Your task to perform on an android device: turn on translation in the chrome app Image 0: 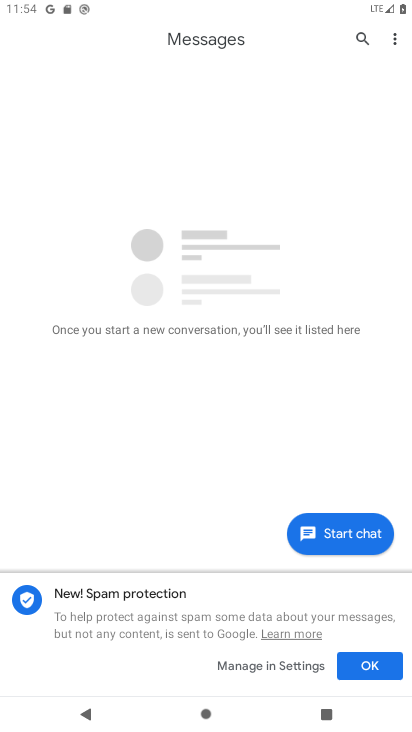
Step 0: press home button
Your task to perform on an android device: turn on translation in the chrome app Image 1: 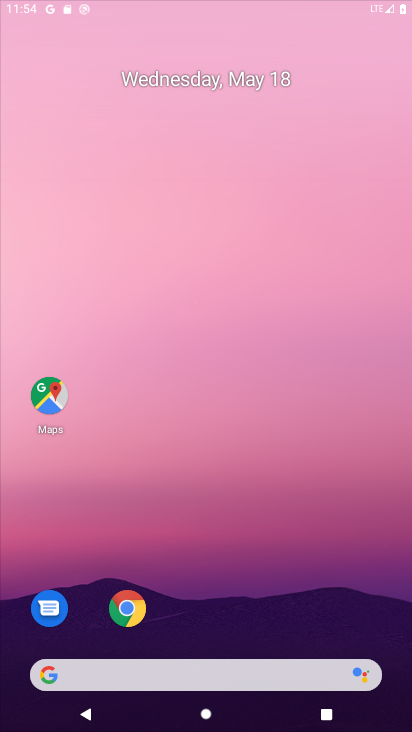
Step 1: drag from (234, 553) to (220, 90)
Your task to perform on an android device: turn on translation in the chrome app Image 2: 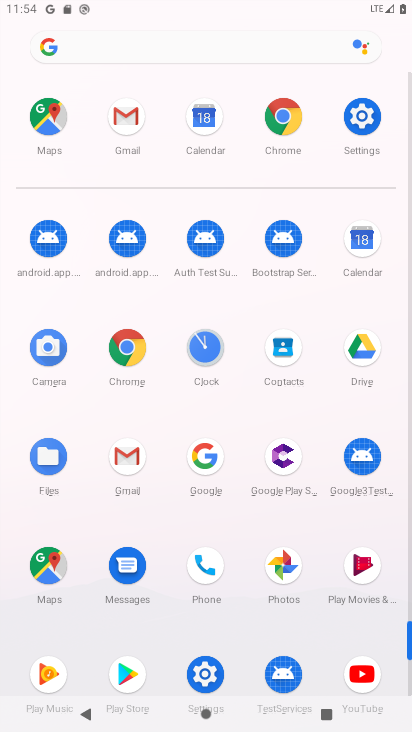
Step 2: click (138, 361)
Your task to perform on an android device: turn on translation in the chrome app Image 3: 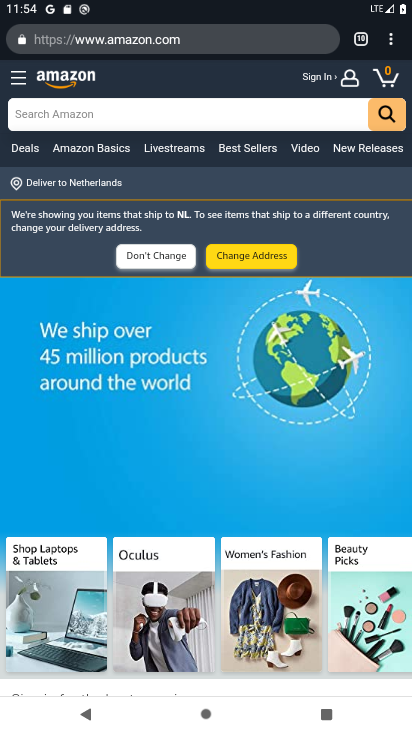
Step 3: click (388, 43)
Your task to perform on an android device: turn on translation in the chrome app Image 4: 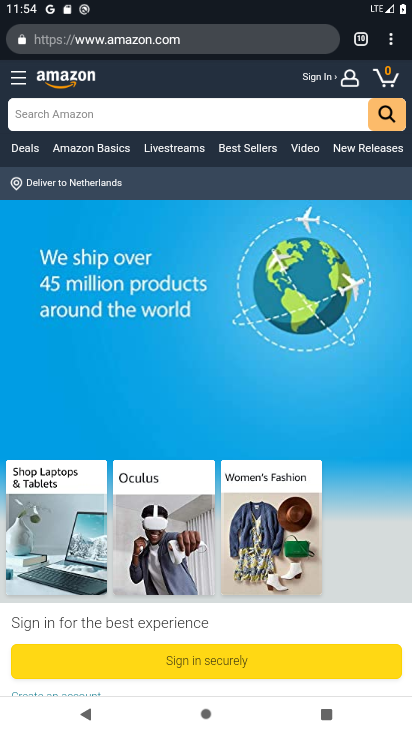
Step 4: click (393, 39)
Your task to perform on an android device: turn on translation in the chrome app Image 5: 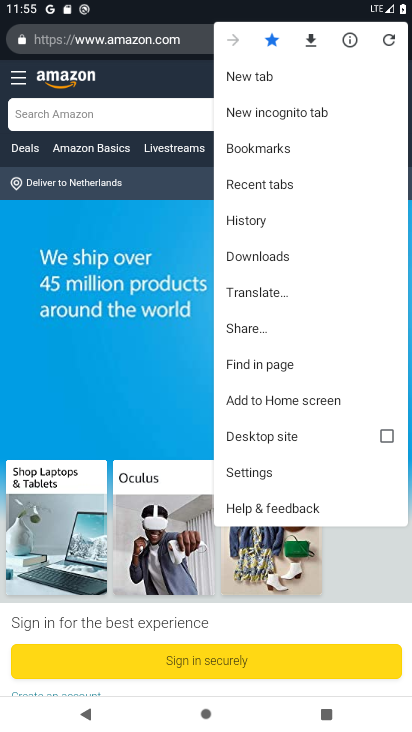
Step 5: click (252, 474)
Your task to perform on an android device: turn on translation in the chrome app Image 6: 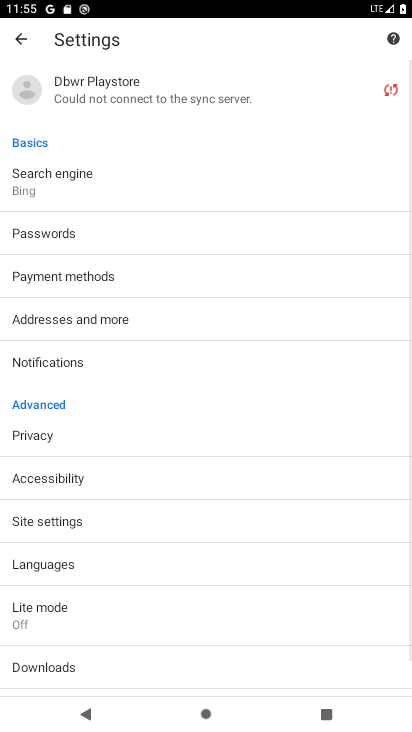
Step 6: click (45, 562)
Your task to perform on an android device: turn on translation in the chrome app Image 7: 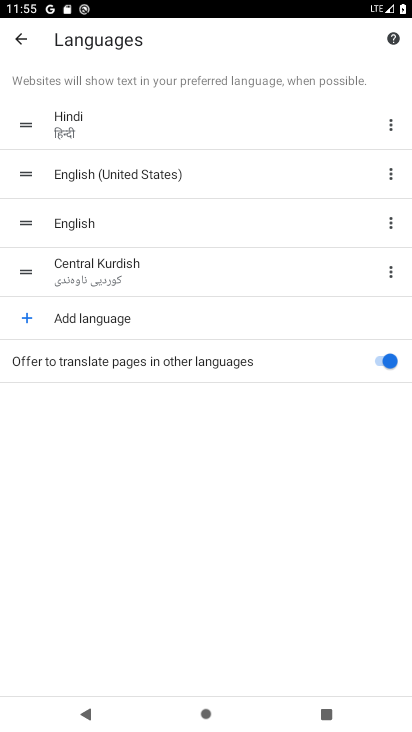
Step 7: task complete